Your task to perform on an android device: Open the calendar app, open the side menu, and click the "Day" option Image 0: 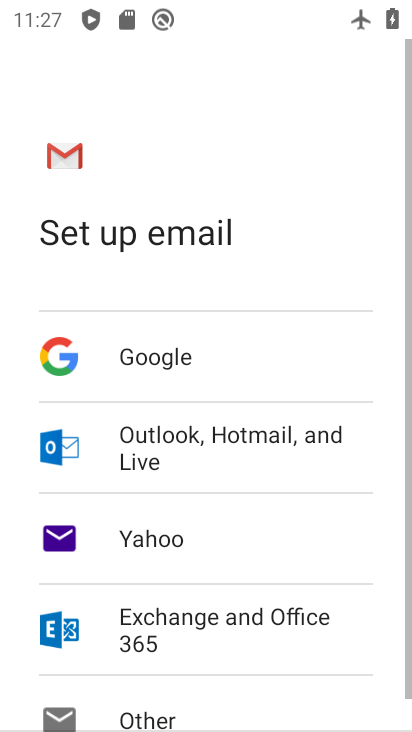
Step 0: press home button
Your task to perform on an android device: Open the calendar app, open the side menu, and click the "Day" option Image 1: 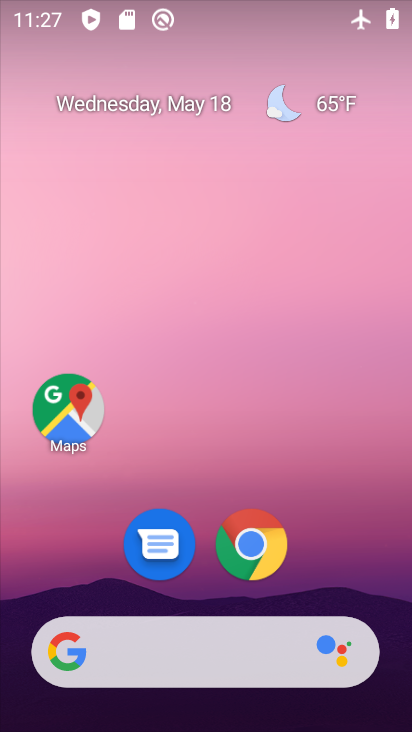
Step 1: drag from (375, 566) to (373, 70)
Your task to perform on an android device: Open the calendar app, open the side menu, and click the "Day" option Image 2: 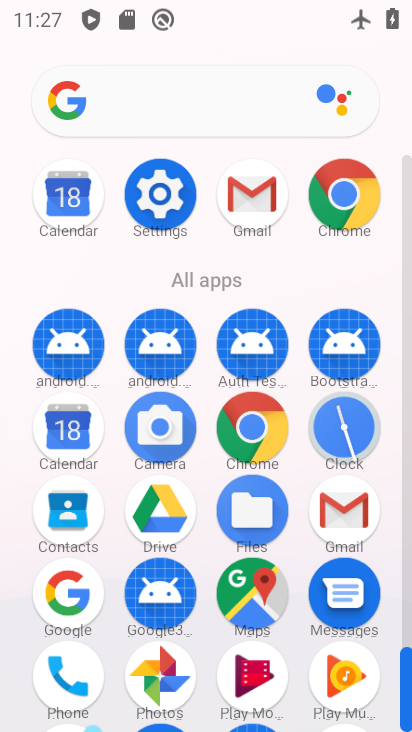
Step 2: click (75, 443)
Your task to perform on an android device: Open the calendar app, open the side menu, and click the "Day" option Image 3: 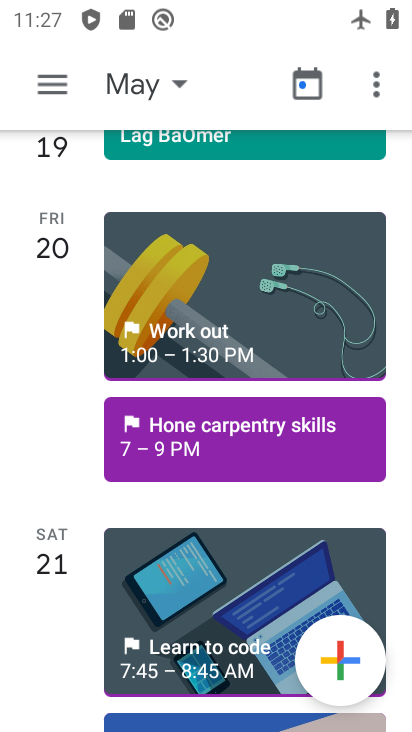
Step 3: click (39, 81)
Your task to perform on an android device: Open the calendar app, open the side menu, and click the "Day" option Image 4: 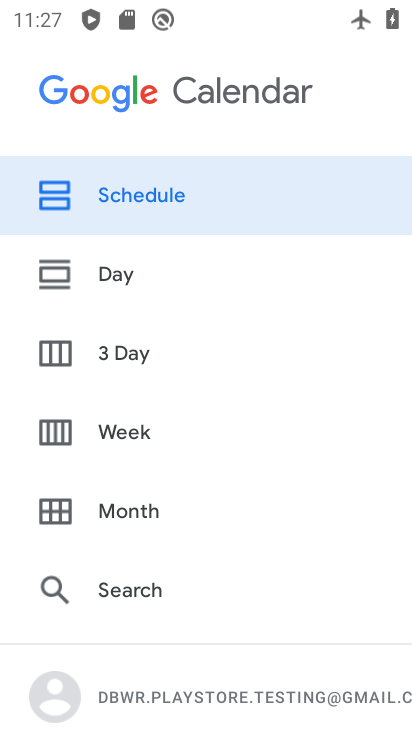
Step 4: click (190, 282)
Your task to perform on an android device: Open the calendar app, open the side menu, and click the "Day" option Image 5: 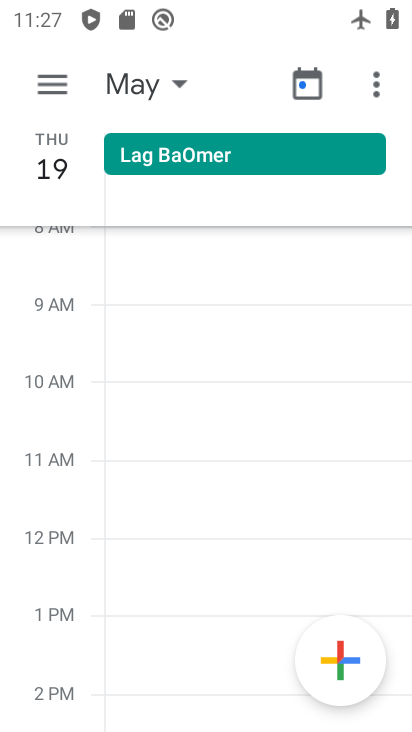
Step 5: task complete